Your task to perform on an android device: delete a single message in the gmail app Image 0: 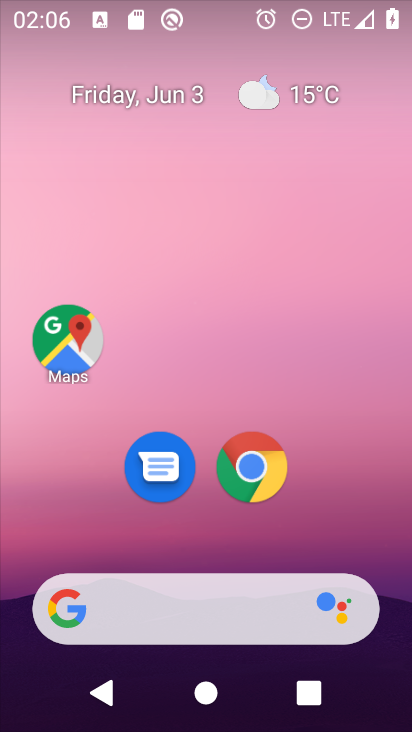
Step 0: drag from (391, 604) to (314, 79)
Your task to perform on an android device: delete a single message in the gmail app Image 1: 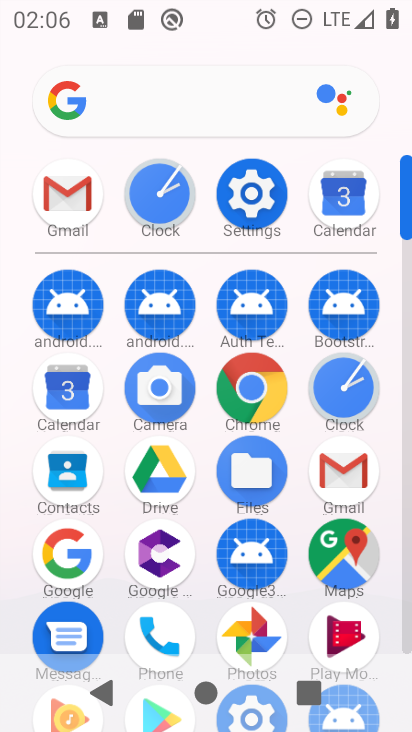
Step 1: click (409, 635)
Your task to perform on an android device: delete a single message in the gmail app Image 2: 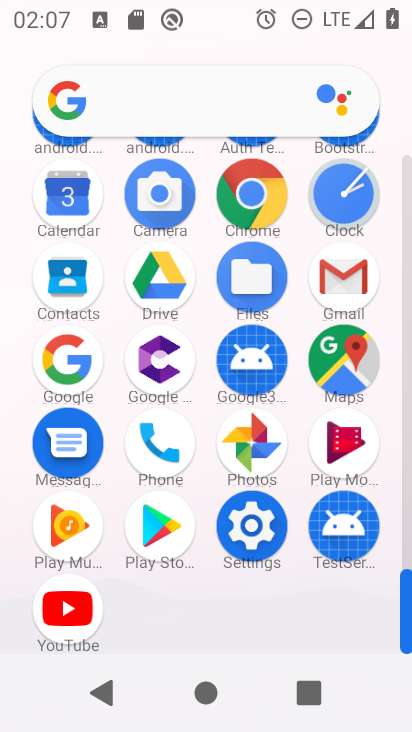
Step 2: click (340, 275)
Your task to perform on an android device: delete a single message in the gmail app Image 3: 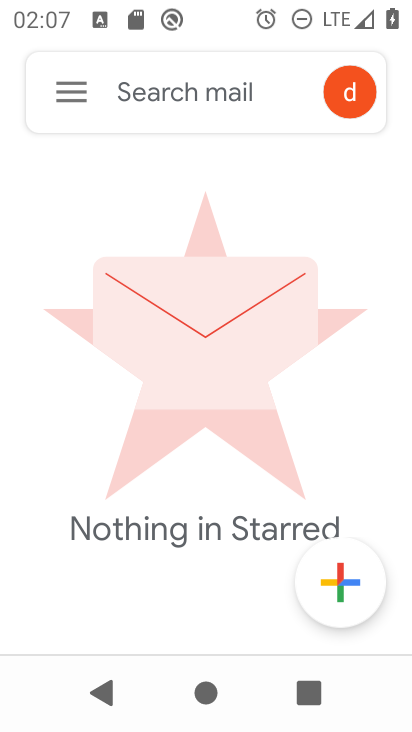
Step 3: click (63, 88)
Your task to perform on an android device: delete a single message in the gmail app Image 4: 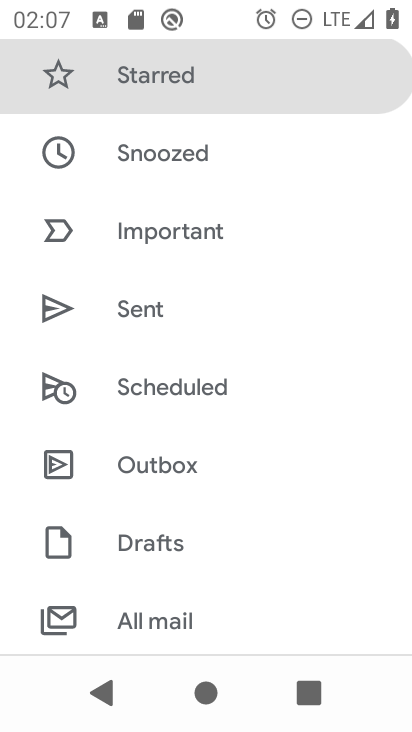
Step 4: drag from (246, 458) to (283, 170)
Your task to perform on an android device: delete a single message in the gmail app Image 5: 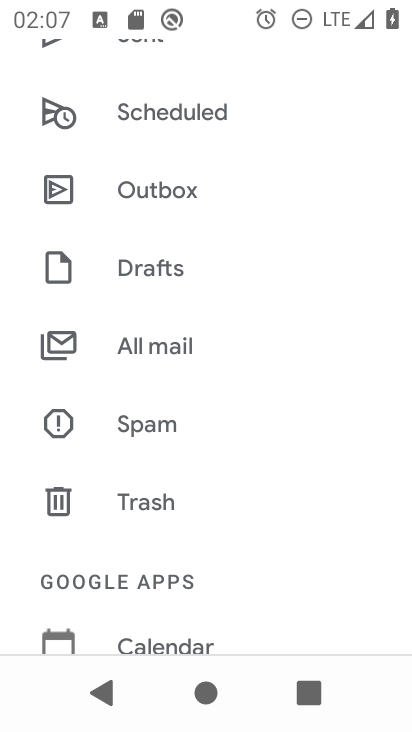
Step 5: click (161, 352)
Your task to perform on an android device: delete a single message in the gmail app Image 6: 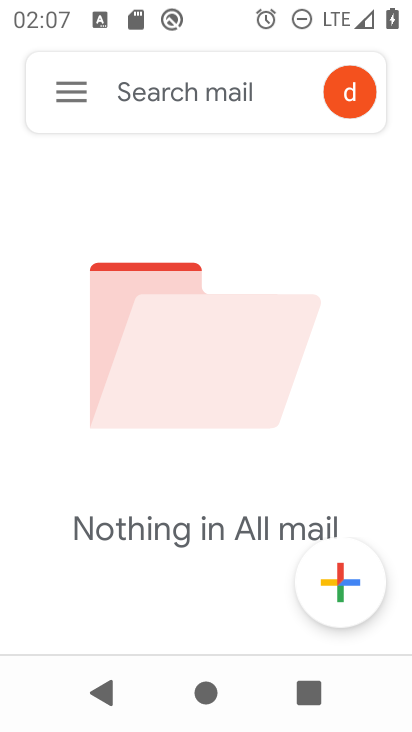
Step 6: task complete